Your task to perform on an android device: Open sound settings Image 0: 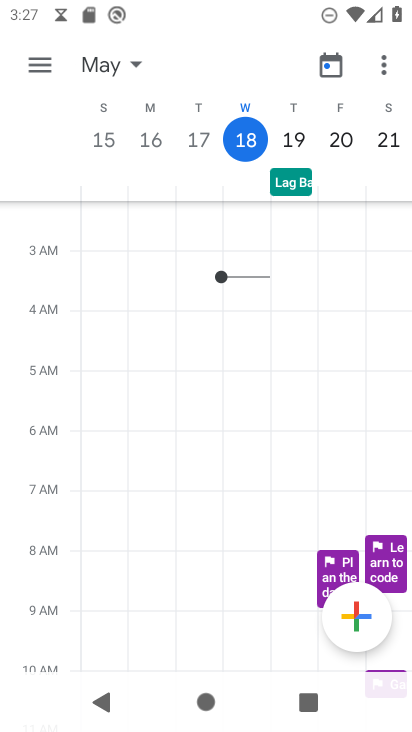
Step 0: press home button
Your task to perform on an android device: Open sound settings Image 1: 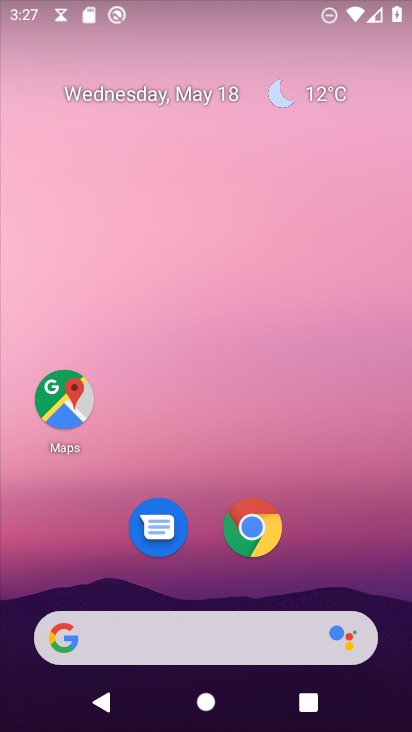
Step 1: drag from (339, 520) to (236, 39)
Your task to perform on an android device: Open sound settings Image 2: 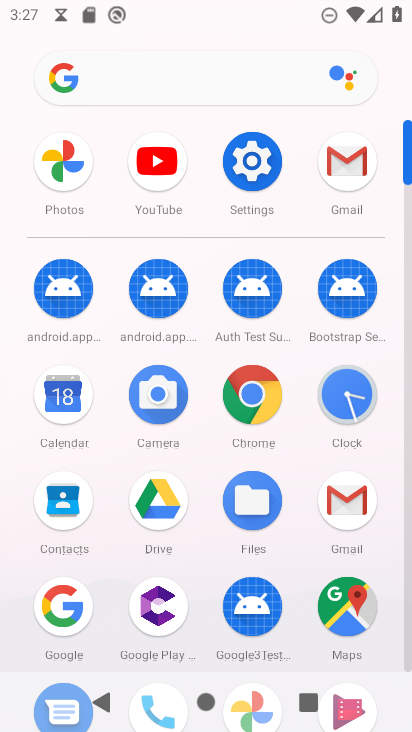
Step 2: click (258, 169)
Your task to perform on an android device: Open sound settings Image 3: 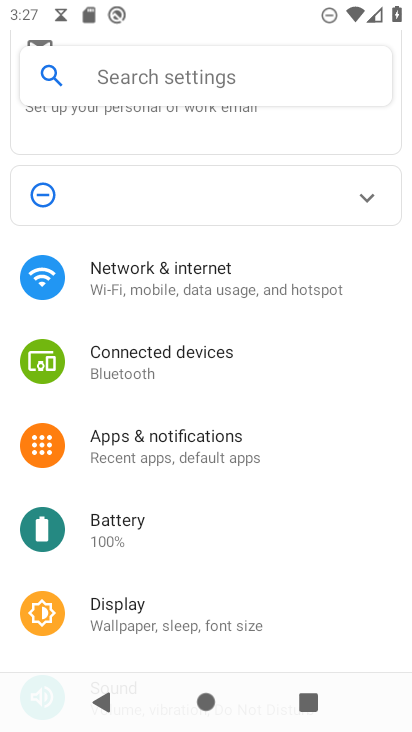
Step 3: drag from (204, 555) to (186, 257)
Your task to perform on an android device: Open sound settings Image 4: 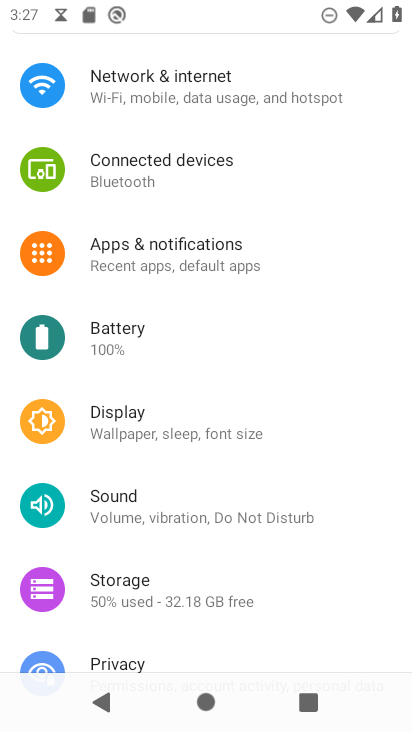
Step 4: click (182, 489)
Your task to perform on an android device: Open sound settings Image 5: 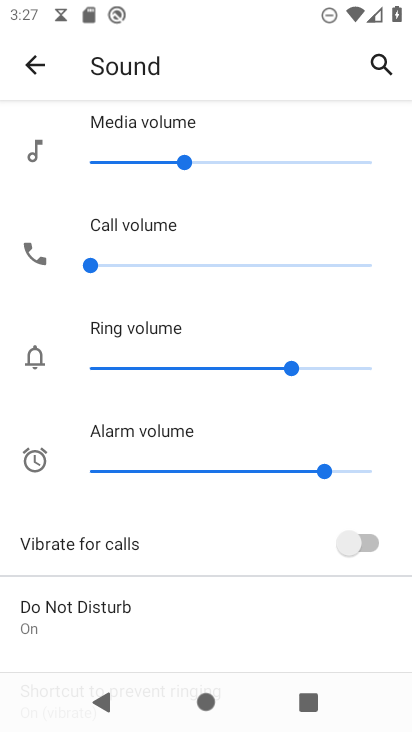
Step 5: task complete